Your task to perform on an android device: delete location history Image 0: 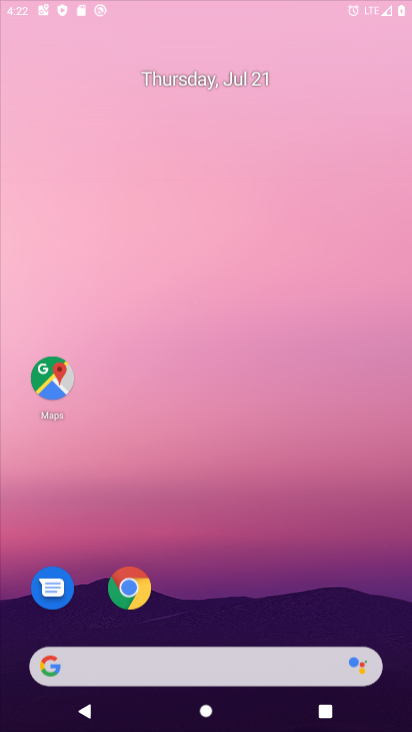
Step 0: click (270, 71)
Your task to perform on an android device: delete location history Image 1: 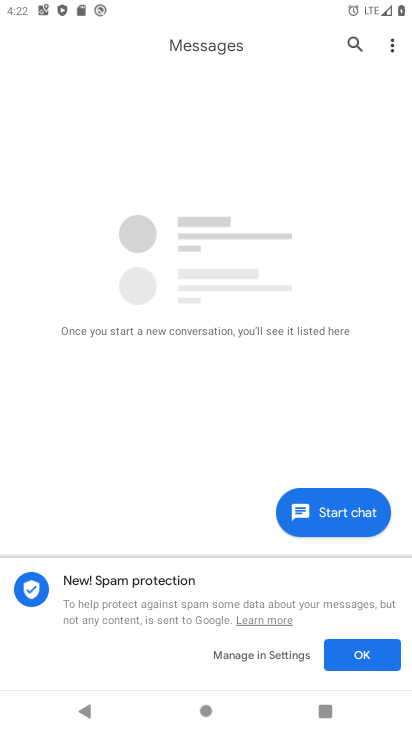
Step 1: press home button
Your task to perform on an android device: delete location history Image 2: 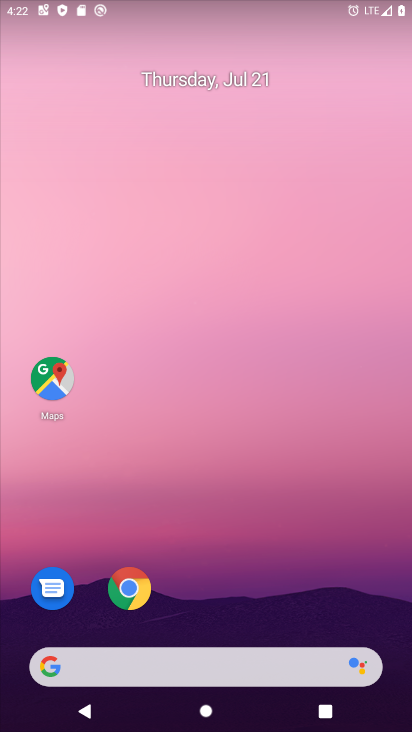
Step 2: drag from (264, 622) to (294, 88)
Your task to perform on an android device: delete location history Image 3: 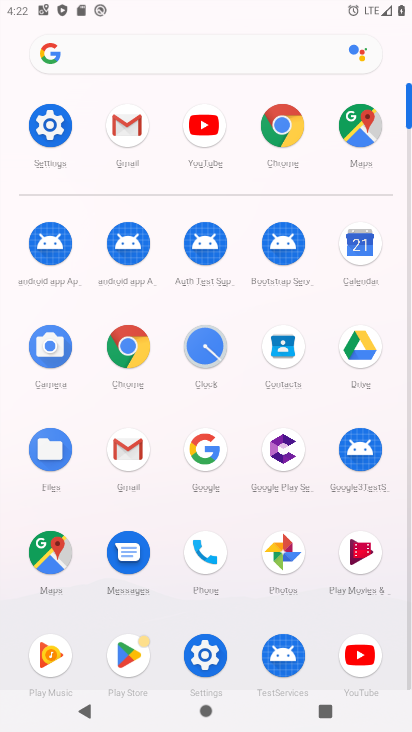
Step 3: click (359, 124)
Your task to perform on an android device: delete location history Image 4: 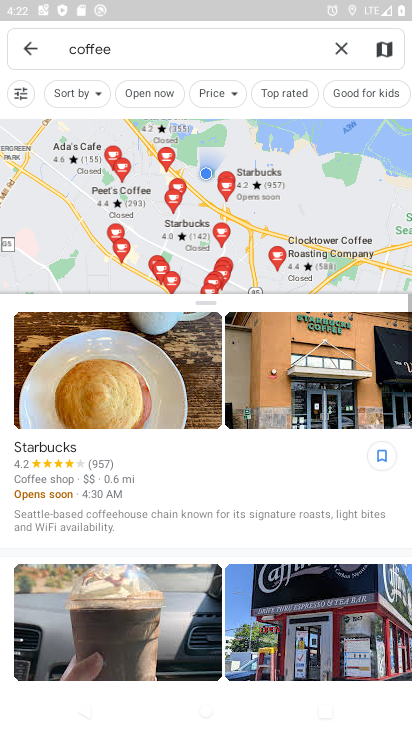
Step 4: click (24, 39)
Your task to perform on an android device: delete location history Image 5: 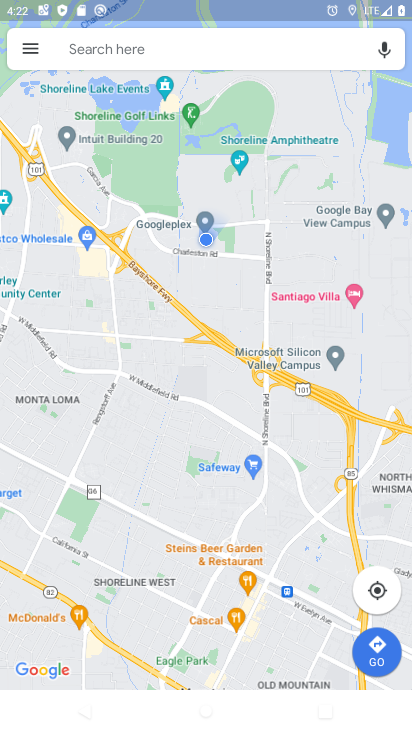
Step 5: click (31, 50)
Your task to perform on an android device: delete location history Image 6: 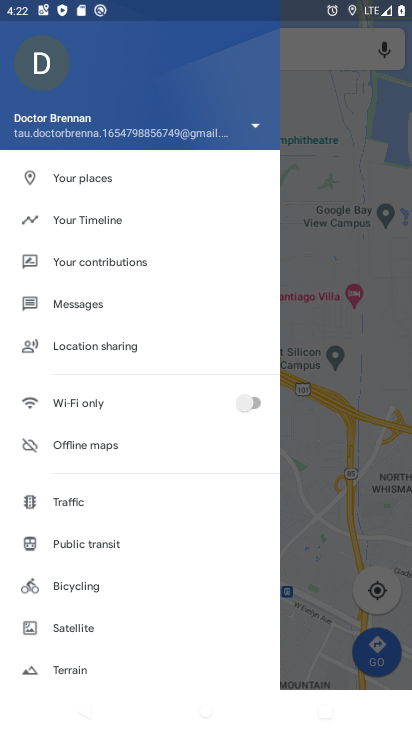
Step 6: drag from (135, 575) to (183, 218)
Your task to perform on an android device: delete location history Image 7: 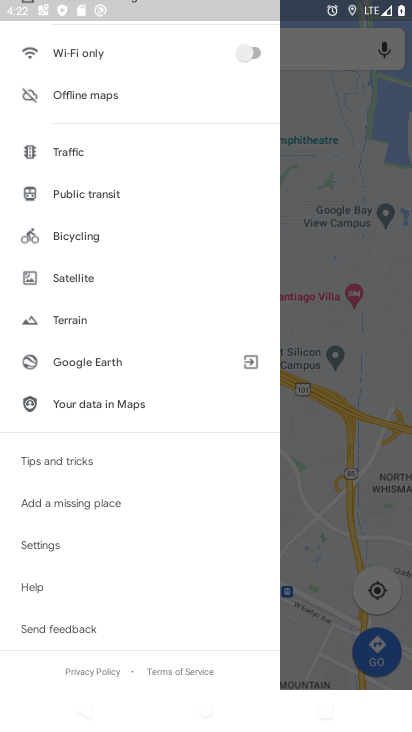
Step 7: drag from (183, 218) to (141, 575)
Your task to perform on an android device: delete location history Image 8: 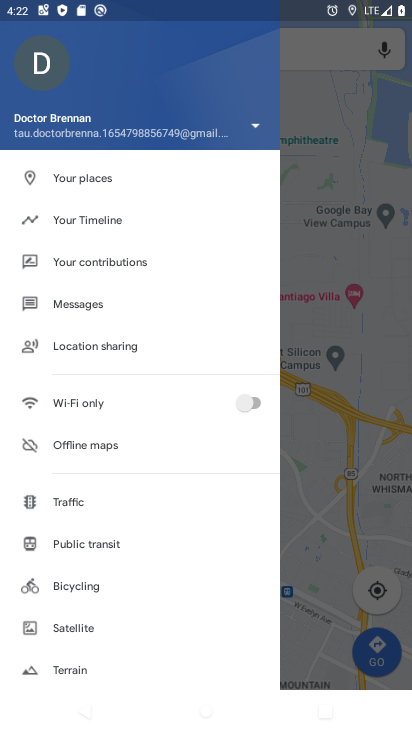
Step 8: click (89, 222)
Your task to perform on an android device: delete location history Image 9: 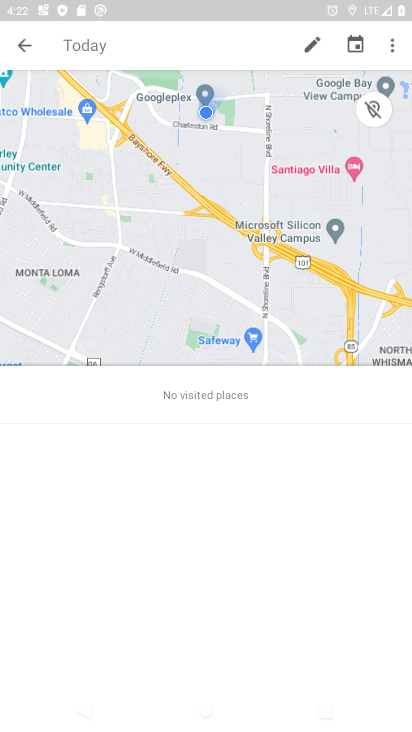
Step 9: click (397, 39)
Your task to perform on an android device: delete location history Image 10: 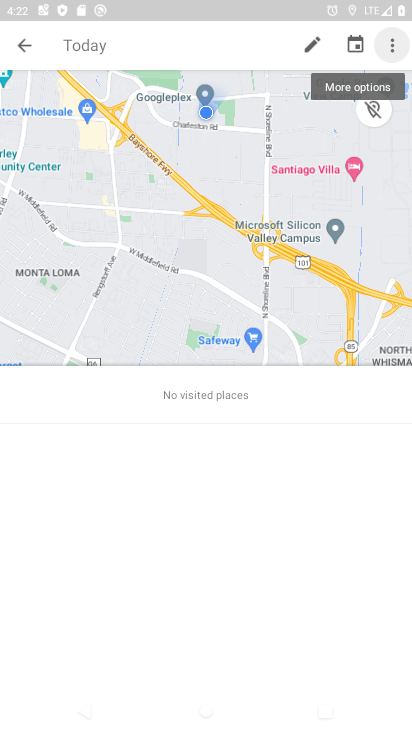
Step 10: click (397, 39)
Your task to perform on an android device: delete location history Image 11: 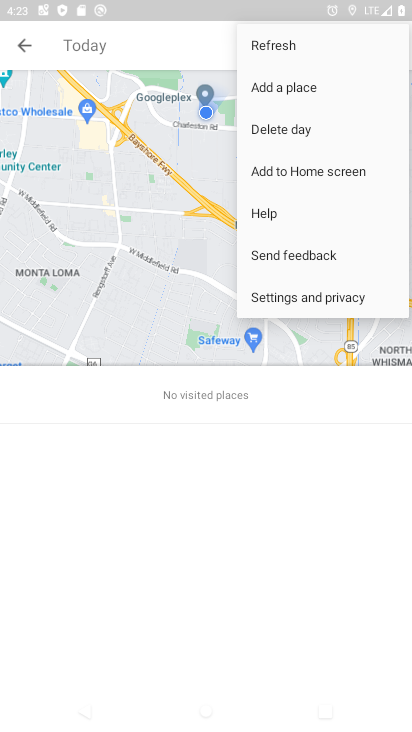
Step 11: click (281, 301)
Your task to perform on an android device: delete location history Image 12: 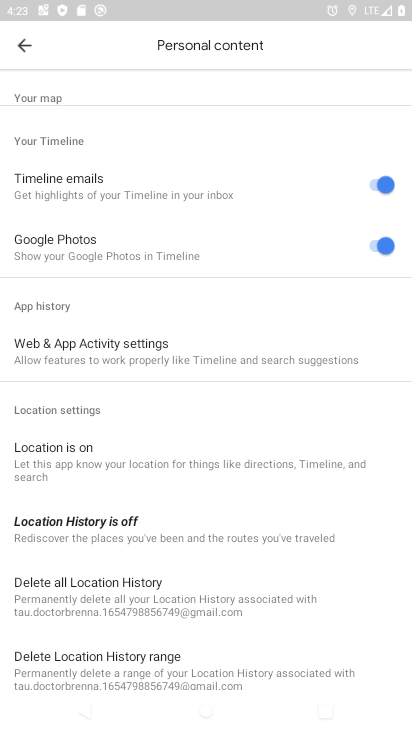
Step 12: click (48, 525)
Your task to perform on an android device: delete location history Image 13: 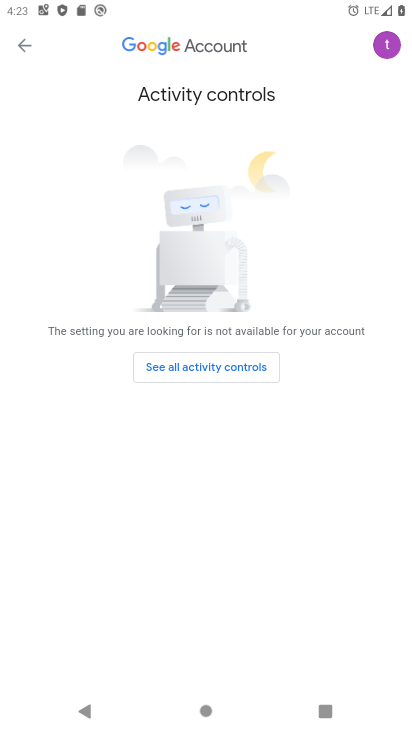
Step 13: task complete